Your task to perform on an android device: Go to battery settings Image 0: 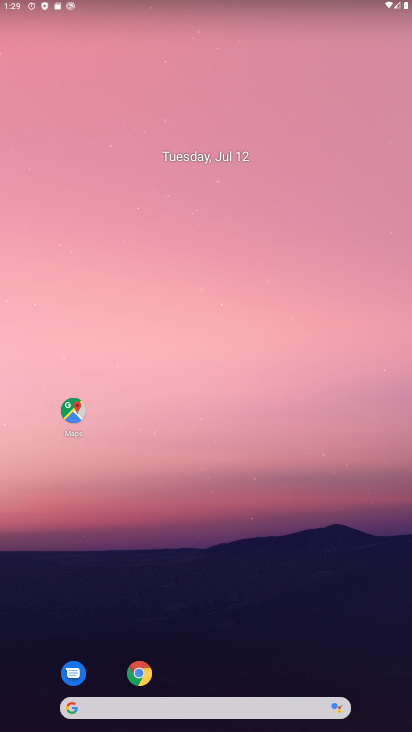
Step 0: drag from (211, 619) to (229, 192)
Your task to perform on an android device: Go to battery settings Image 1: 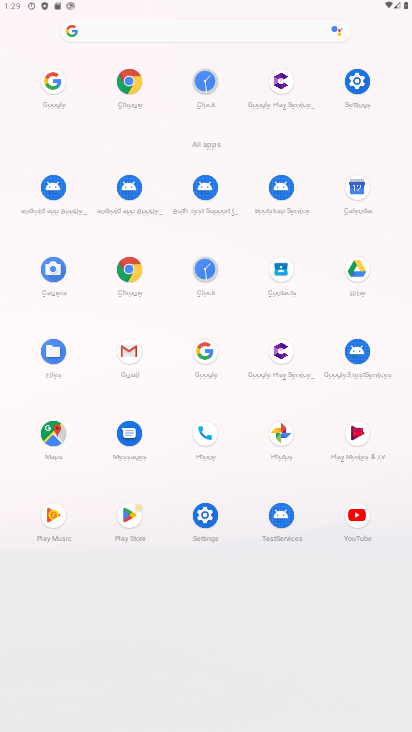
Step 1: click (376, 81)
Your task to perform on an android device: Go to battery settings Image 2: 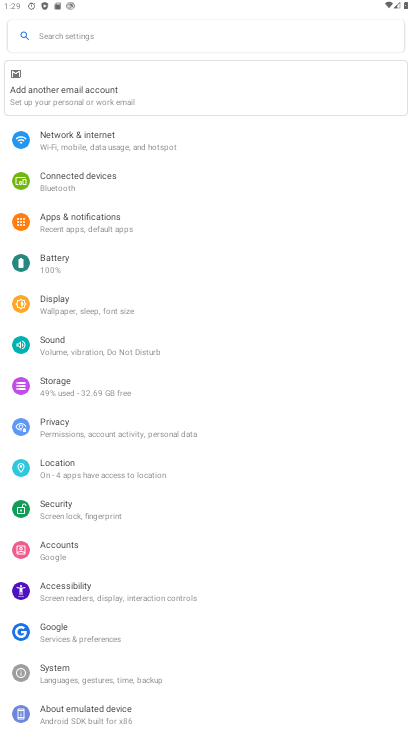
Step 2: click (51, 261)
Your task to perform on an android device: Go to battery settings Image 3: 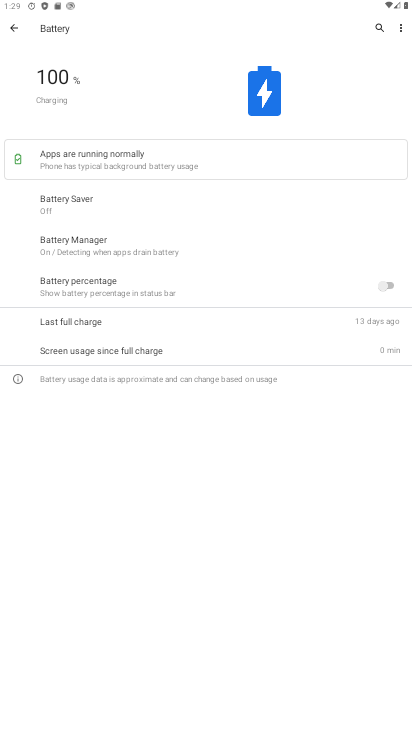
Step 3: task complete